Your task to perform on an android device: Go to Maps Image 0: 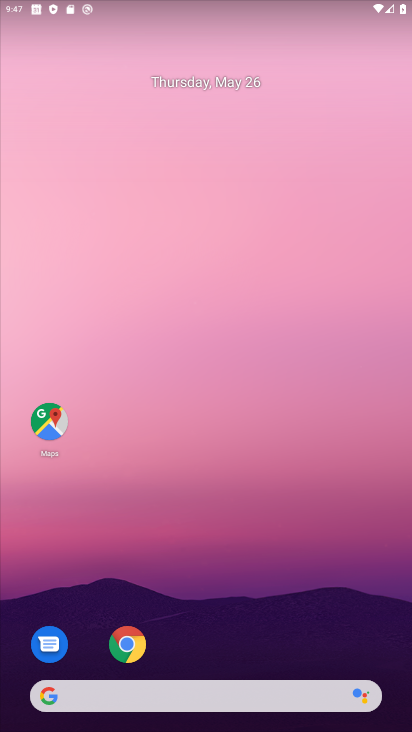
Step 0: drag from (296, 689) to (237, 18)
Your task to perform on an android device: Go to Maps Image 1: 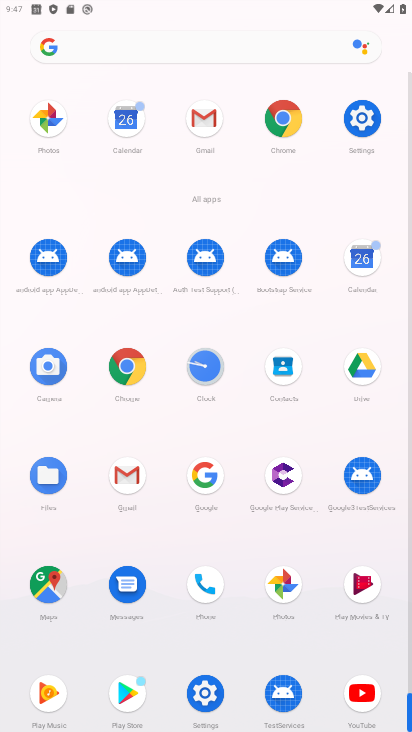
Step 1: click (32, 592)
Your task to perform on an android device: Go to Maps Image 2: 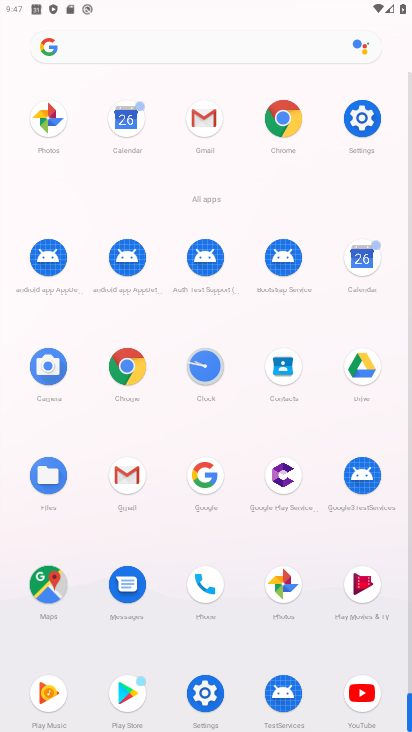
Step 2: click (40, 584)
Your task to perform on an android device: Go to Maps Image 3: 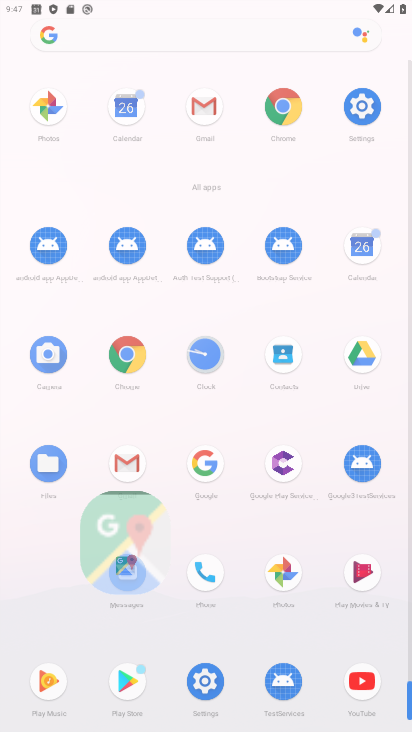
Step 3: click (40, 584)
Your task to perform on an android device: Go to Maps Image 4: 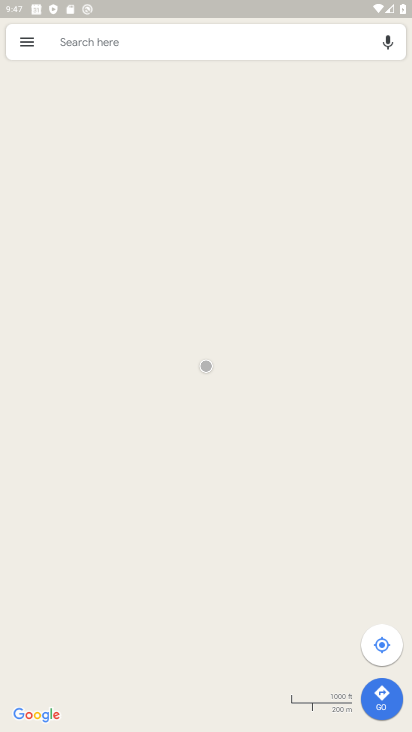
Step 4: task complete